Your task to perform on an android device: What is the recent news? Image 0: 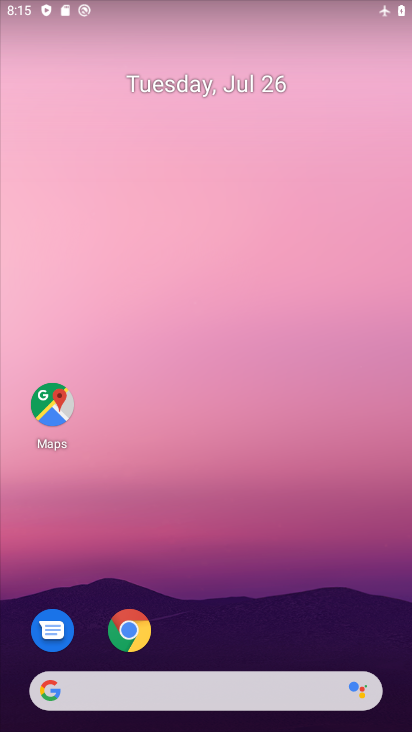
Step 0: drag from (231, 617) to (247, 85)
Your task to perform on an android device: What is the recent news? Image 1: 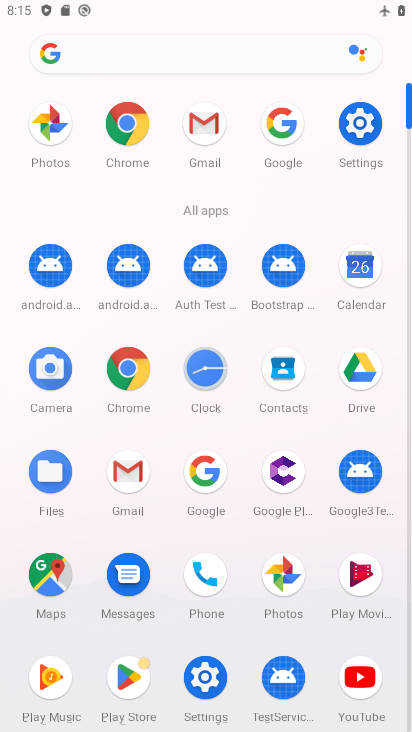
Step 1: click (127, 115)
Your task to perform on an android device: What is the recent news? Image 2: 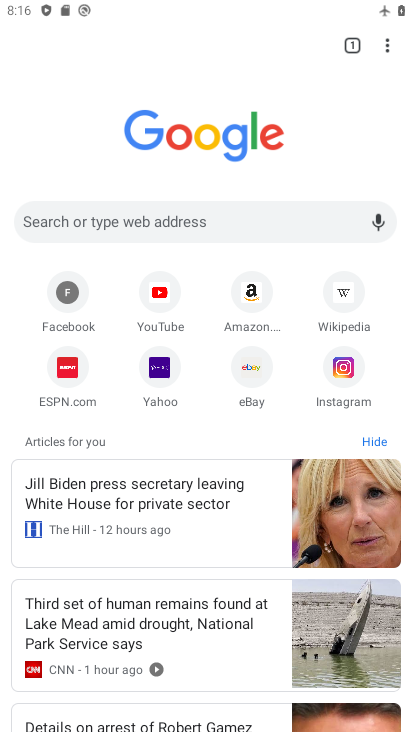
Step 2: task complete